Your task to perform on an android device: Open Google Image 0: 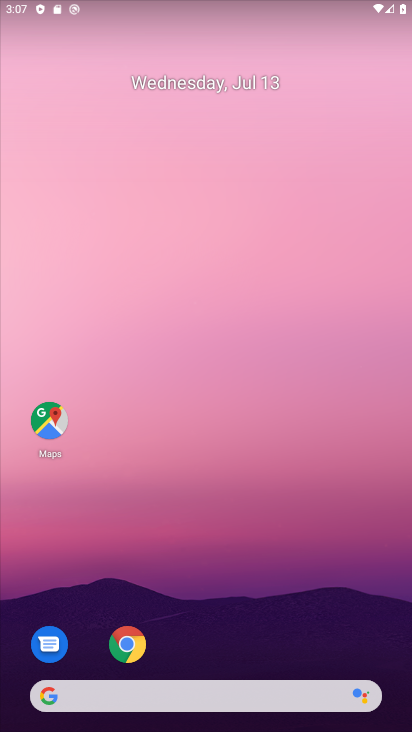
Step 0: drag from (191, 697) to (301, 192)
Your task to perform on an android device: Open Google Image 1: 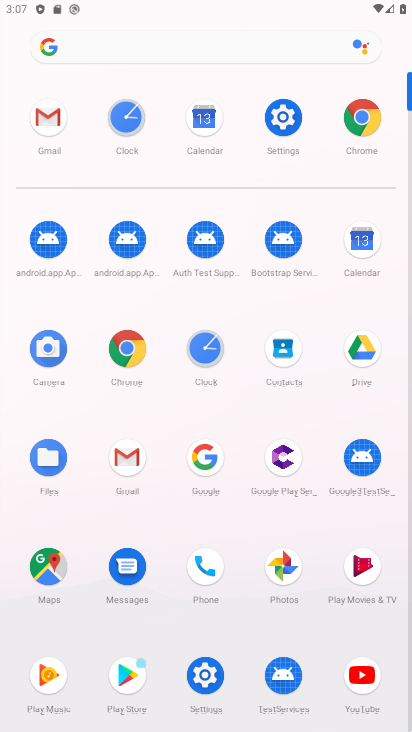
Step 1: click (202, 456)
Your task to perform on an android device: Open Google Image 2: 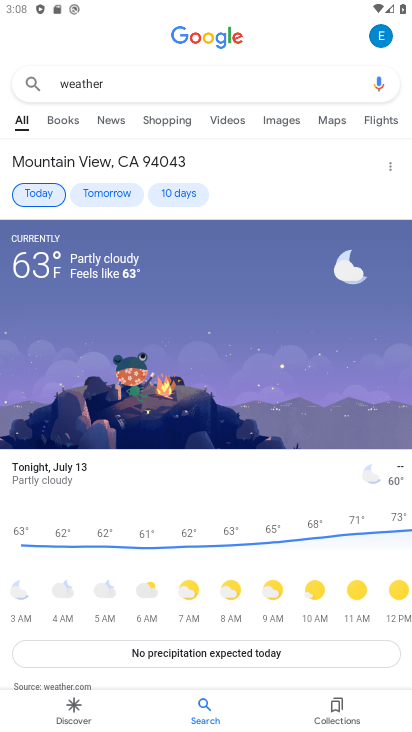
Step 2: task complete